Your task to perform on an android device: Go to battery settings Image 0: 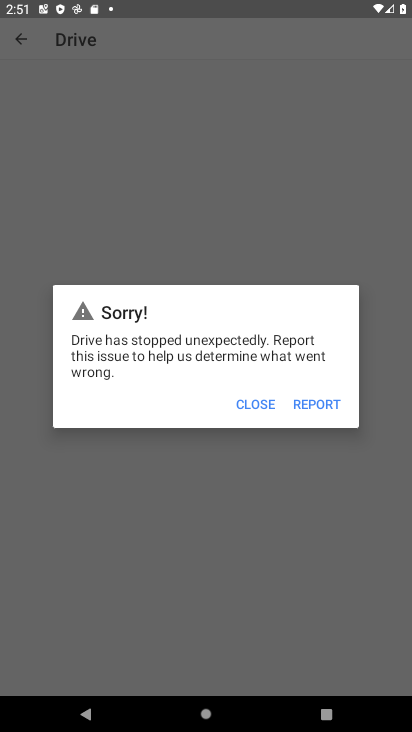
Step 0: press home button
Your task to perform on an android device: Go to battery settings Image 1: 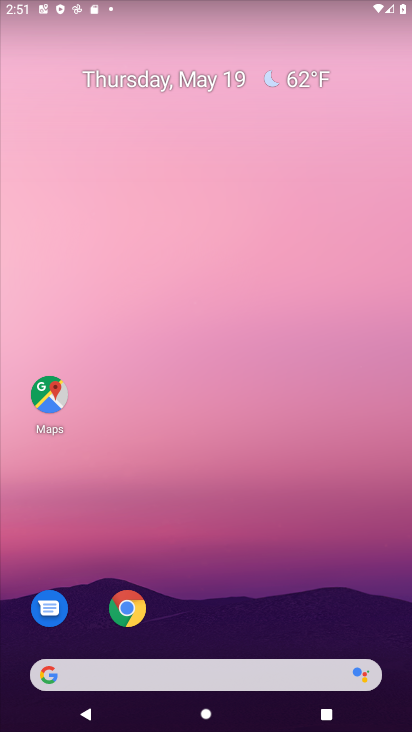
Step 1: drag from (280, 613) to (220, 7)
Your task to perform on an android device: Go to battery settings Image 2: 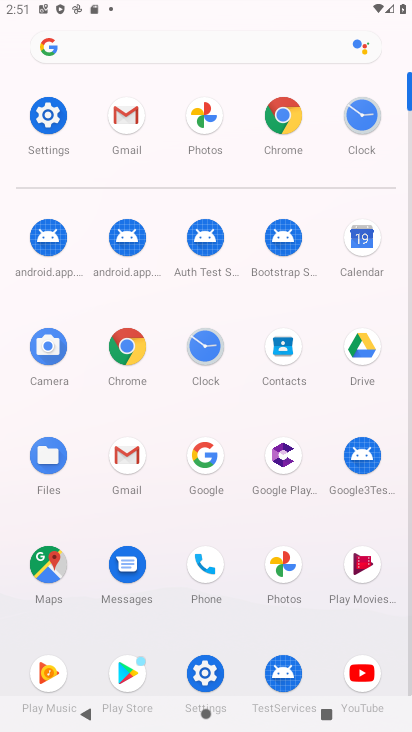
Step 2: click (48, 140)
Your task to perform on an android device: Go to battery settings Image 3: 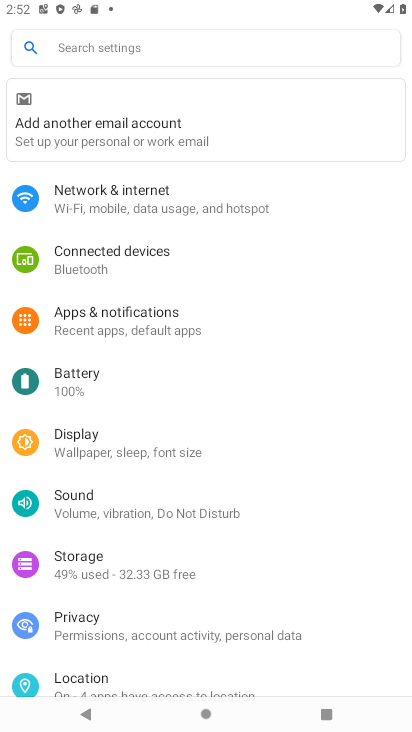
Step 3: click (102, 389)
Your task to perform on an android device: Go to battery settings Image 4: 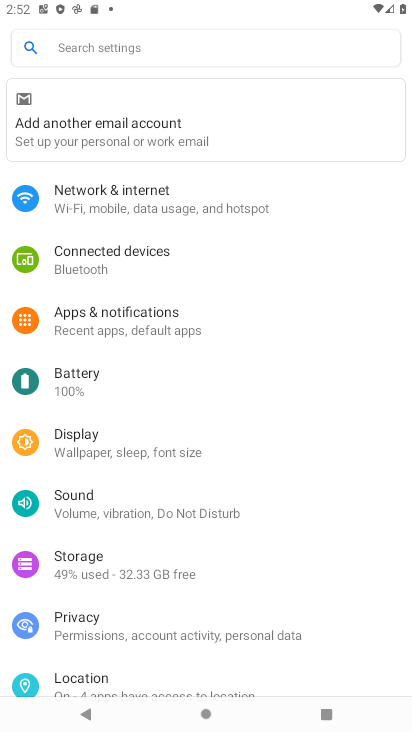
Step 4: task complete